Your task to perform on an android device: visit the assistant section in the google photos Image 0: 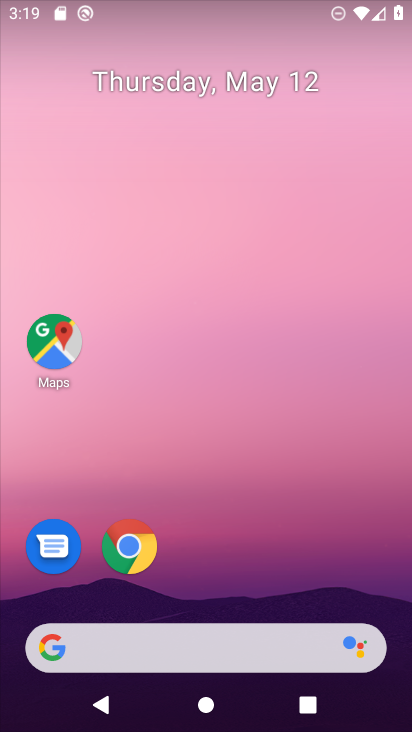
Step 0: drag from (269, 566) to (283, 287)
Your task to perform on an android device: visit the assistant section in the google photos Image 1: 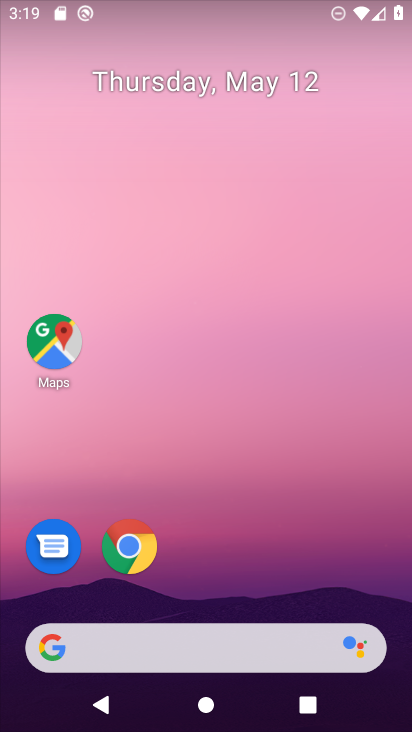
Step 1: drag from (201, 567) to (225, 305)
Your task to perform on an android device: visit the assistant section in the google photos Image 2: 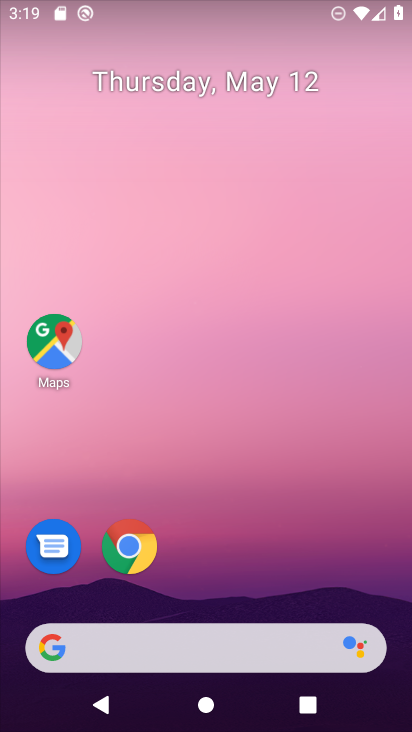
Step 2: drag from (225, 447) to (240, 277)
Your task to perform on an android device: visit the assistant section in the google photos Image 3: 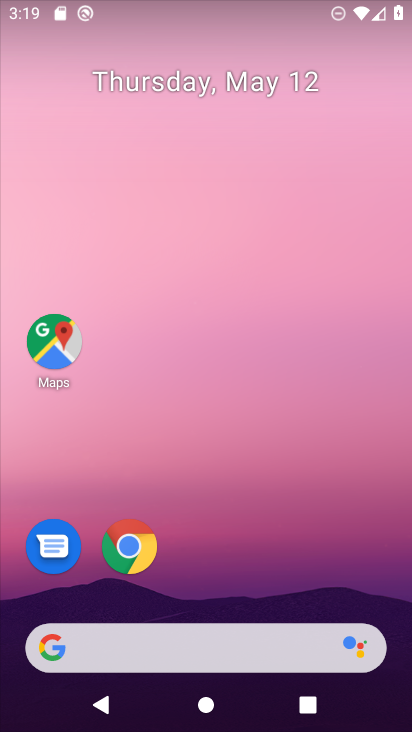
Step 3: drag from (217, 594) to (235, 227)
Your task to perform on an android device: visit the assistant section in the google photos Image 4: 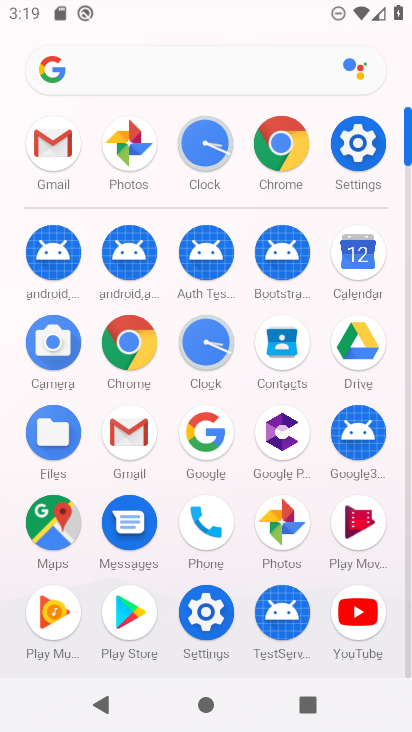
Step 4: click (289, 515)
Your task to perform on an android device: visit the assistant section in the google photos Image 5: 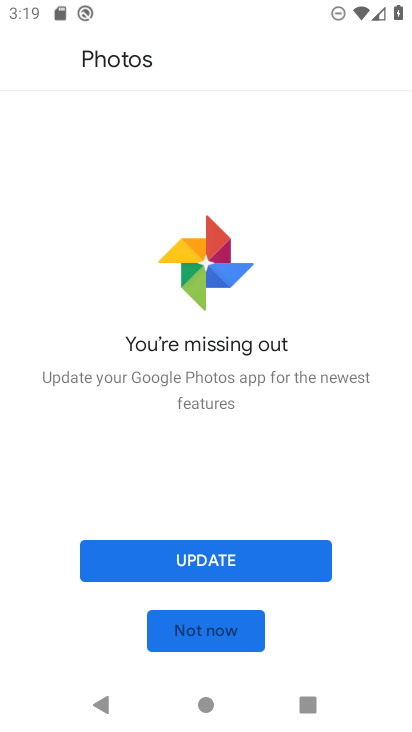
Step 5: click (209, 626)
Your task to perform on an android device: visit the assistant section in the google photos Image 6: 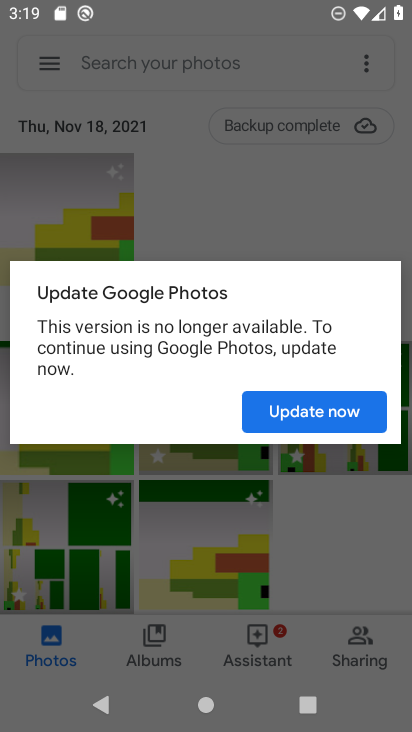
Step 6: click (270, 414)
Your task to perform on an android device: visit the assistant section in the google photos Image 7: 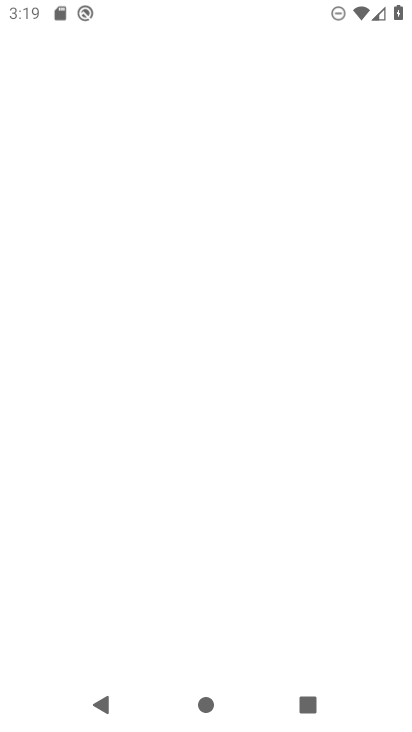
Step 7: press back button
Your task to perform on an android device: visit the assistant section in the google photos Image 8: 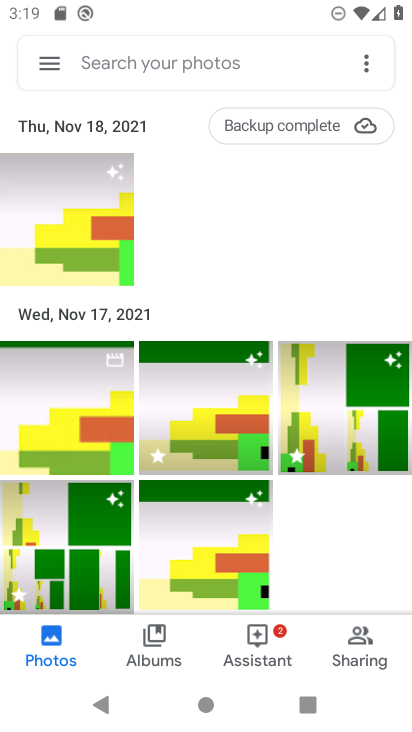
Step 8: click (252, 655)
Your task to perform on an android device: visit the assistant section in the google photos Image 9: 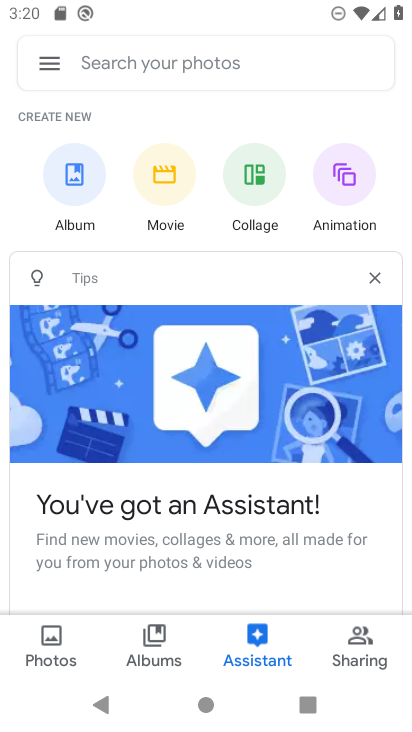
Step 9: task complete